Your task to perform on an android device: toggle sleep mode Image 0: 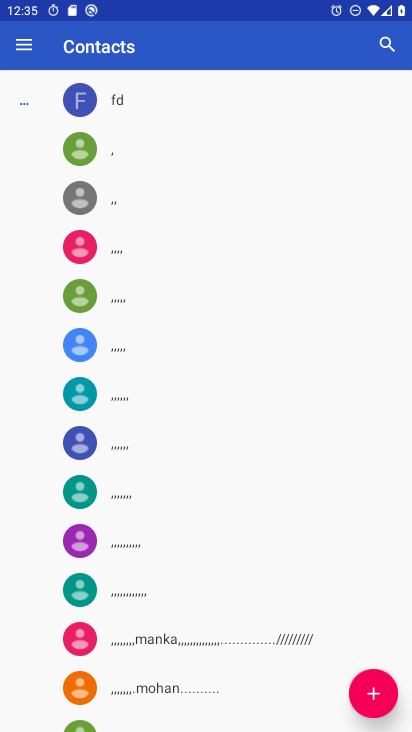
Step 0: press home button
Your task to perform on an android device: toggle sleep mode Image 1: 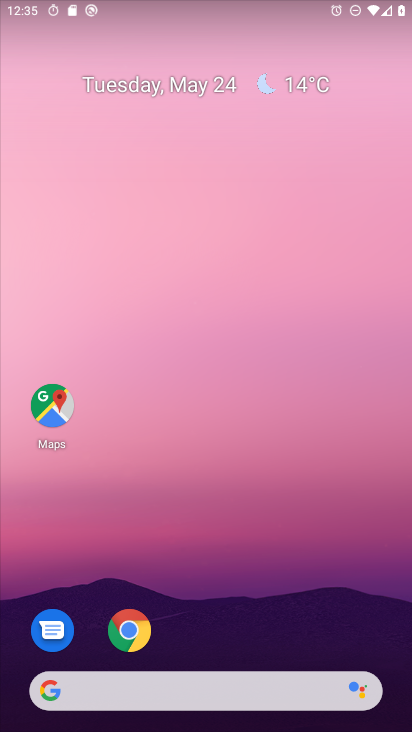
Step 1: drag from (302, 632) to (268, 156)
Your task to perform on an android device: toggle sleep mode Image 2: 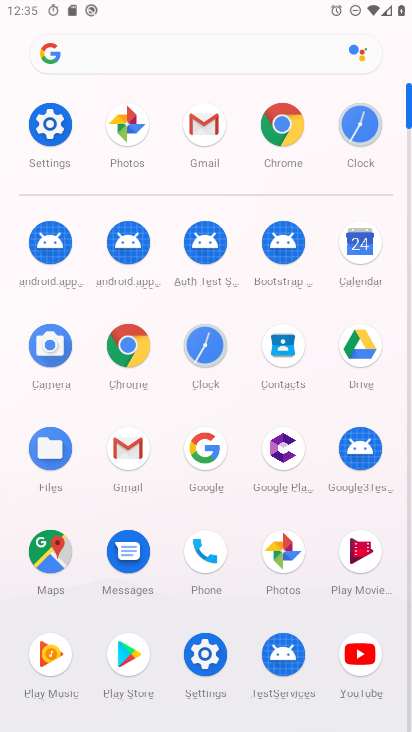
Step 2: click (52, 128)
Your task to perform on an android device: toggle sleep mode Image 3: 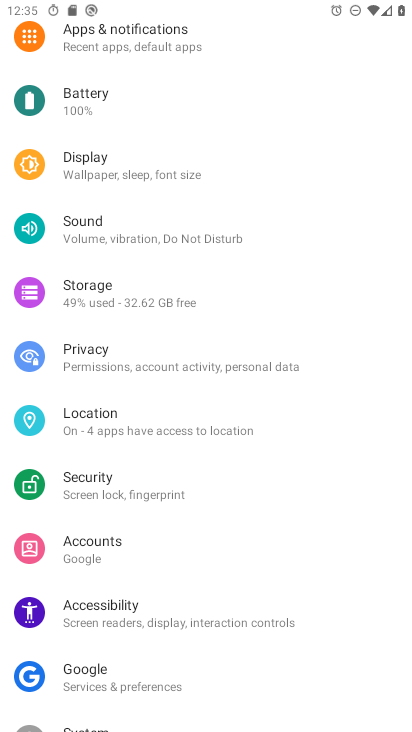
Step 3: drag from (244, 91) to (252, 480)
Your task to perform on an android device: toggle sleep mode Image 4: 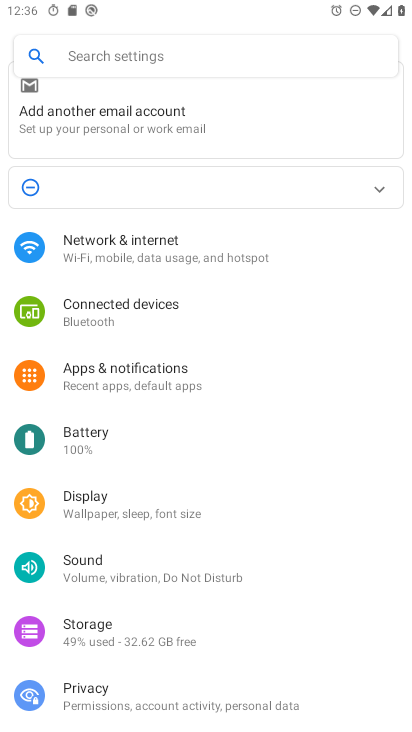
Step 4: click (263, 54)
Your task to perform on an android device: toggle sleep mode Image 5: 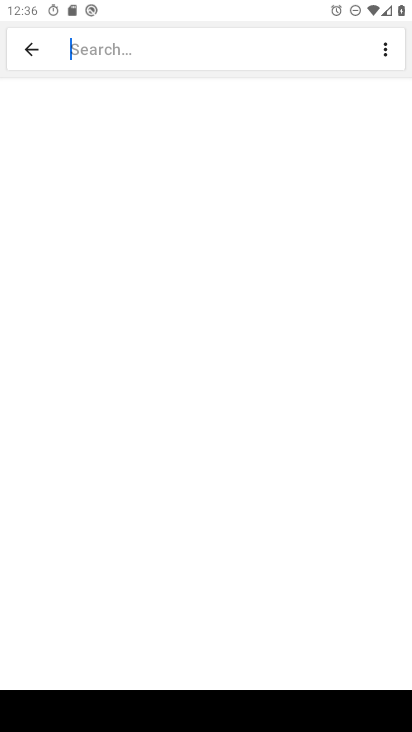
Step 5: type ""
Your task to perform on an android device: toggle sleep mode Image 6: 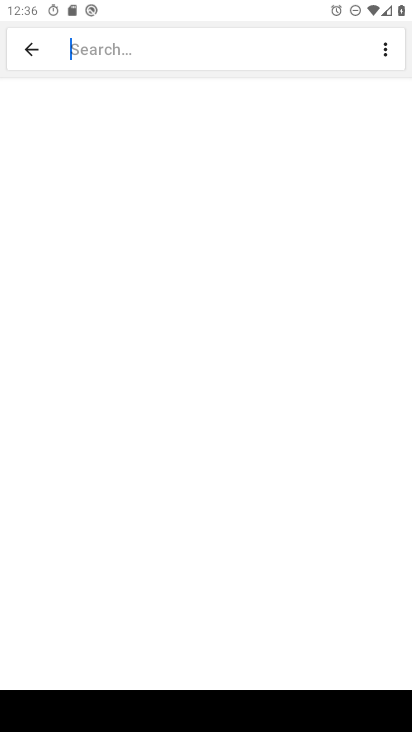
Step 6: type "sleep mode"
Your task to perform on an android device: toggle sleep mode Image 7: 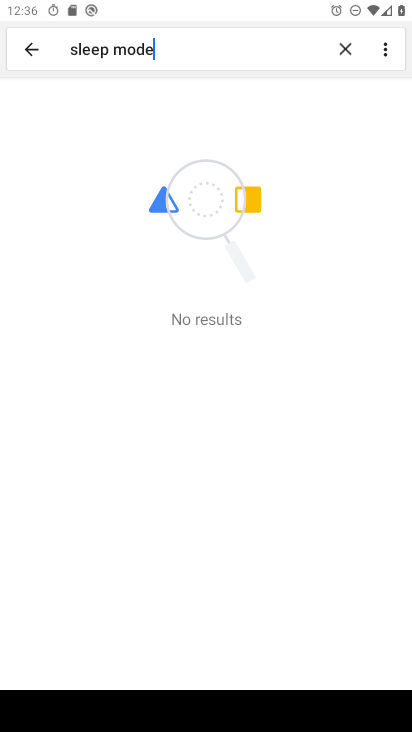
Step 7: task complete